Your task to perform on an android device: Go to accessibility settings Image 0: 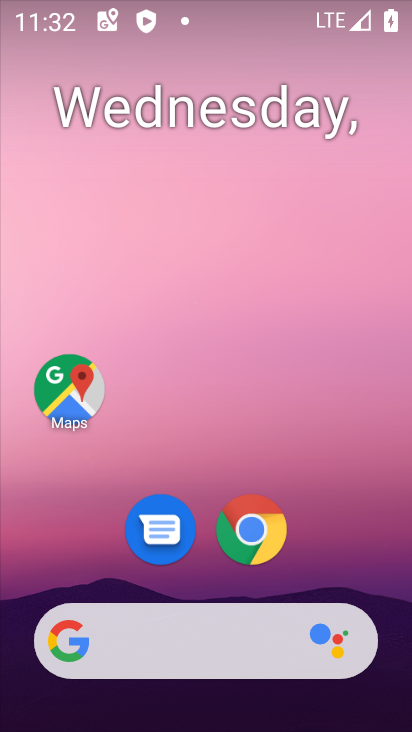
Step 0: drag from (213, 584) to (211, 51)
Your task to perform on an android device: Go to accessibility settings Image 1: 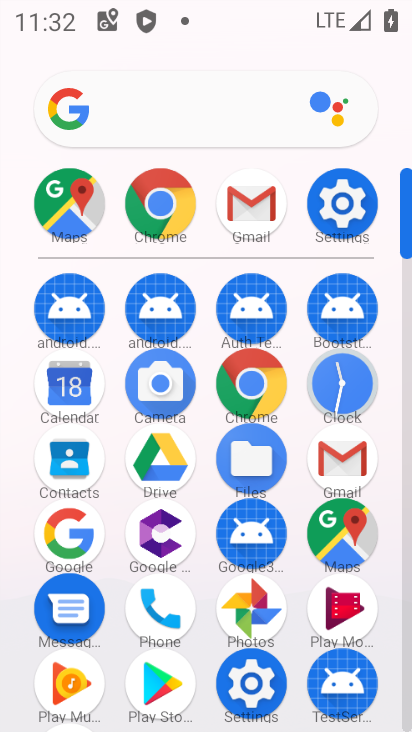
Step 1: click (324, 210)
Your task to perform on an android device: Go to accessibility settings Image 2: 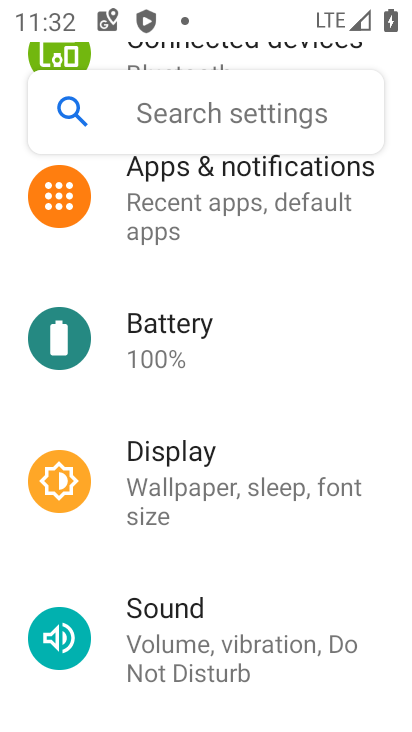
Step 2: drag from (291, 542) to (259, 59)
Your task to perform on an android device: Go to accessibility settings Image 3: 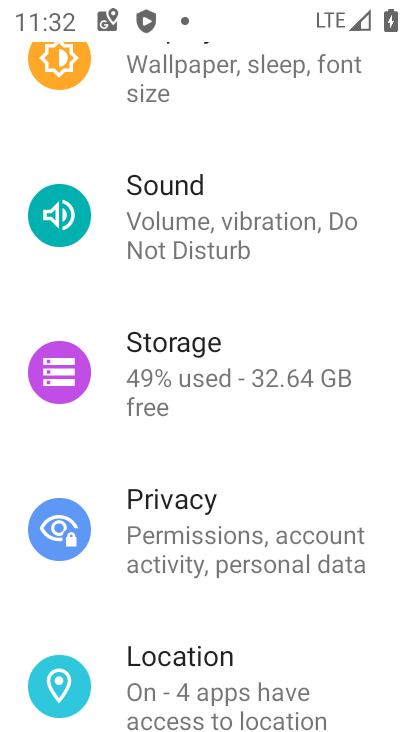
Step 3: drag from (292, 612) to (265, 143)
Your task to perform on an android device: Go to accessibility settings Image 4: 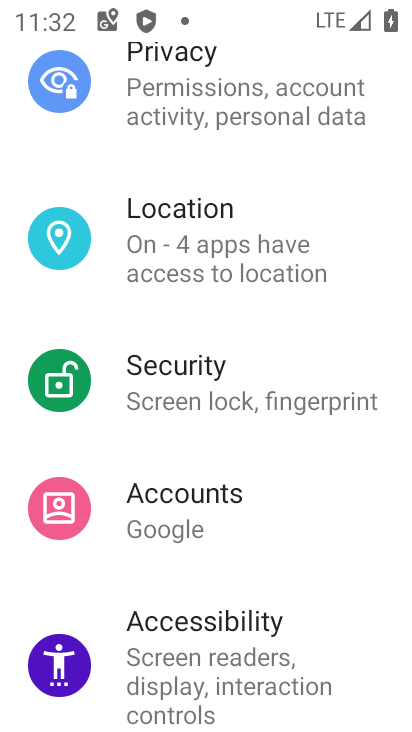
Step 4: click (229, 632)
Your task to perform on an android device: Go to accessibility settings Image 5: 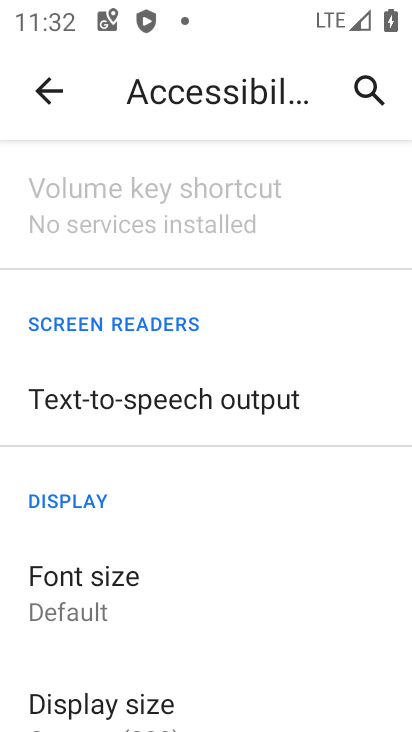
Step 5: task complete